Your task to perform on an android device: Open calendar and show me the first week of next month Image 0: 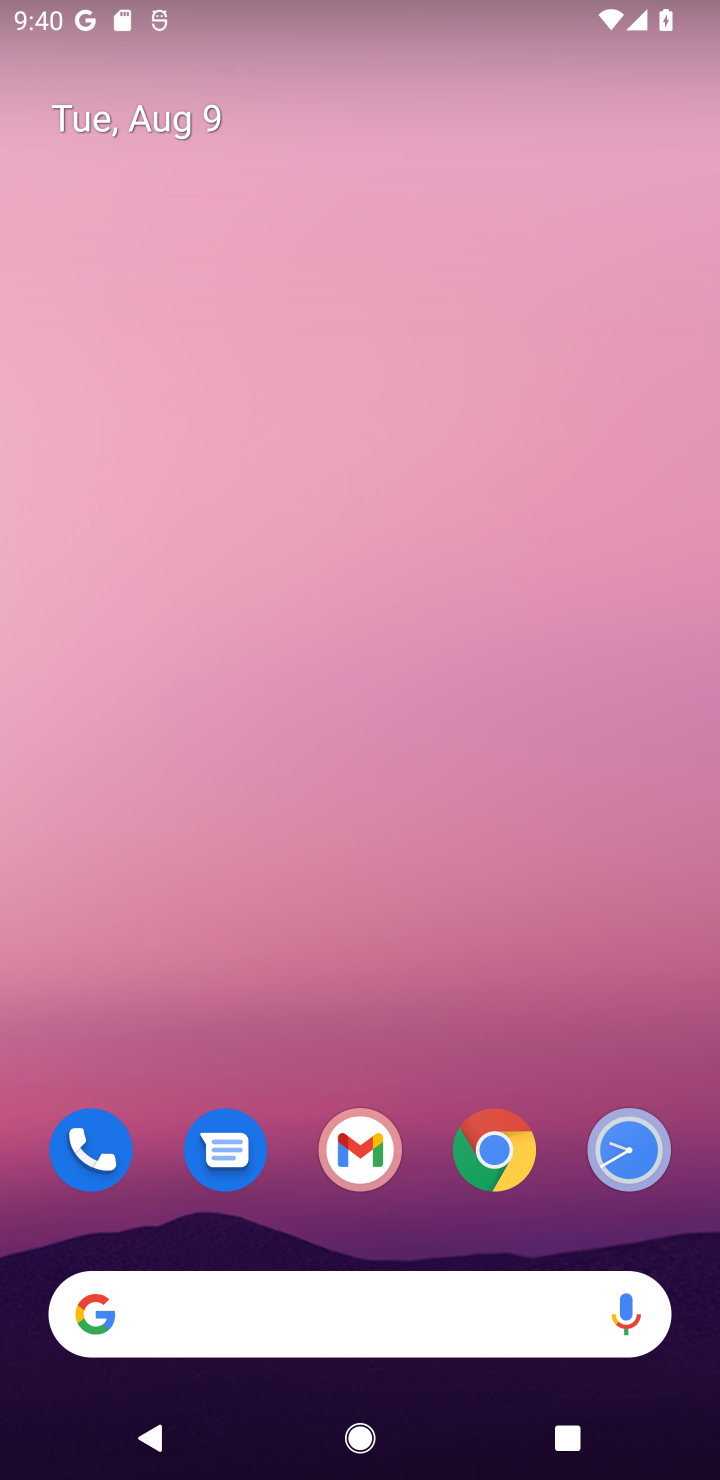
Step 0: drag from (450, 1187) to (498, 570)
Your task to perform on an android device: Open calendar and show me the first week of next month Image 1: 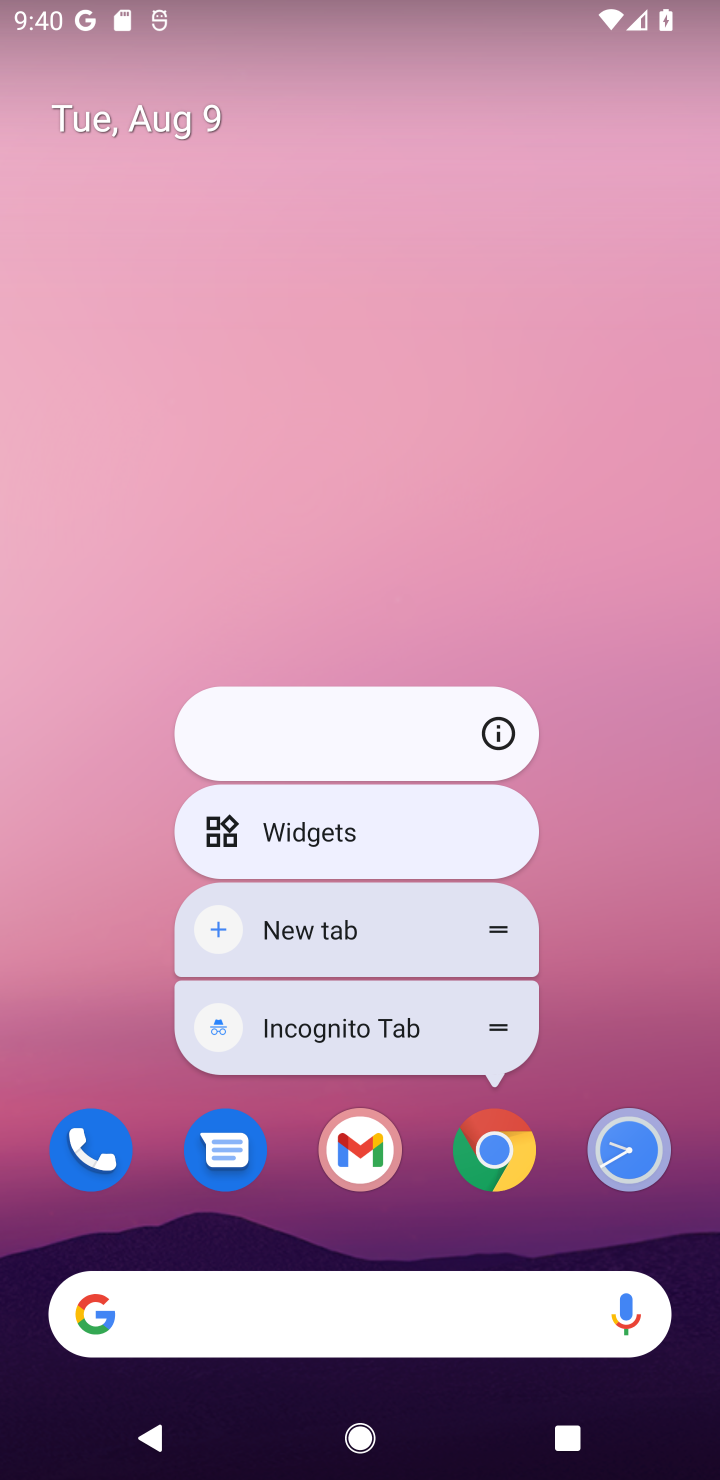
Step 1: click (313, 478)
Your task to perform on an android device: Open calendar and show me the first week of next month Image 2: 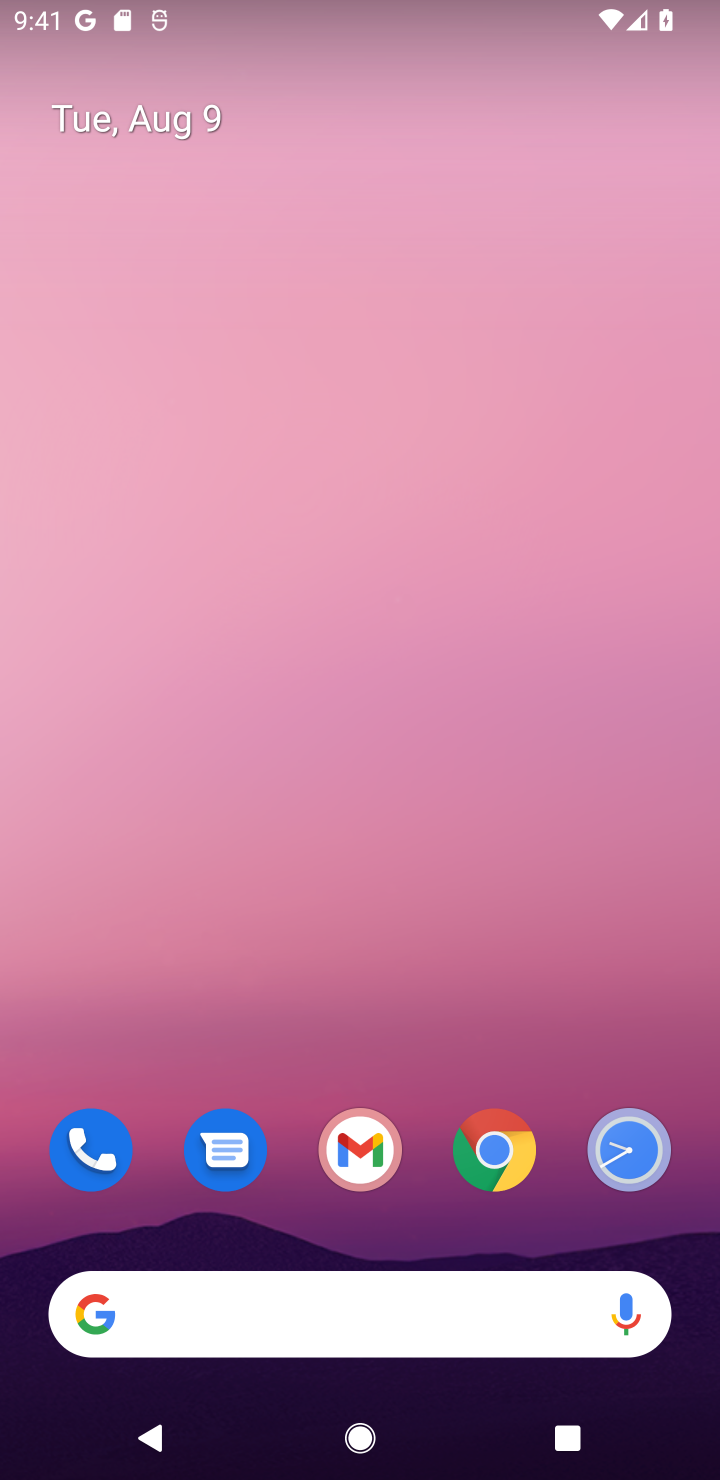
Step 2: drag from (365, 1269) to (183, 182)
Your task to perform on an android device: Open calendar and show me the first week of next month Image 3: 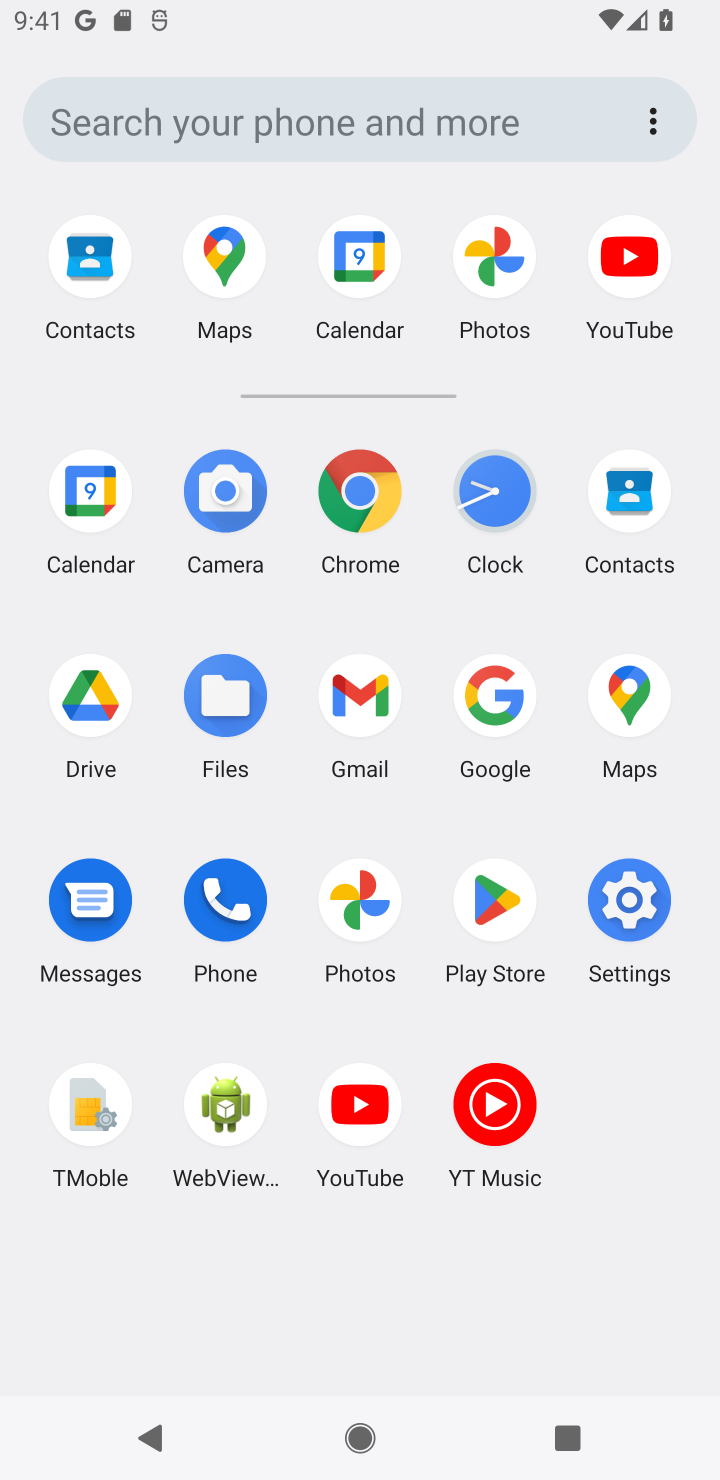
Step 3: click (85, 560)
Your task to perform on an android device: Open calendar and show me the first week of next month Image 4: 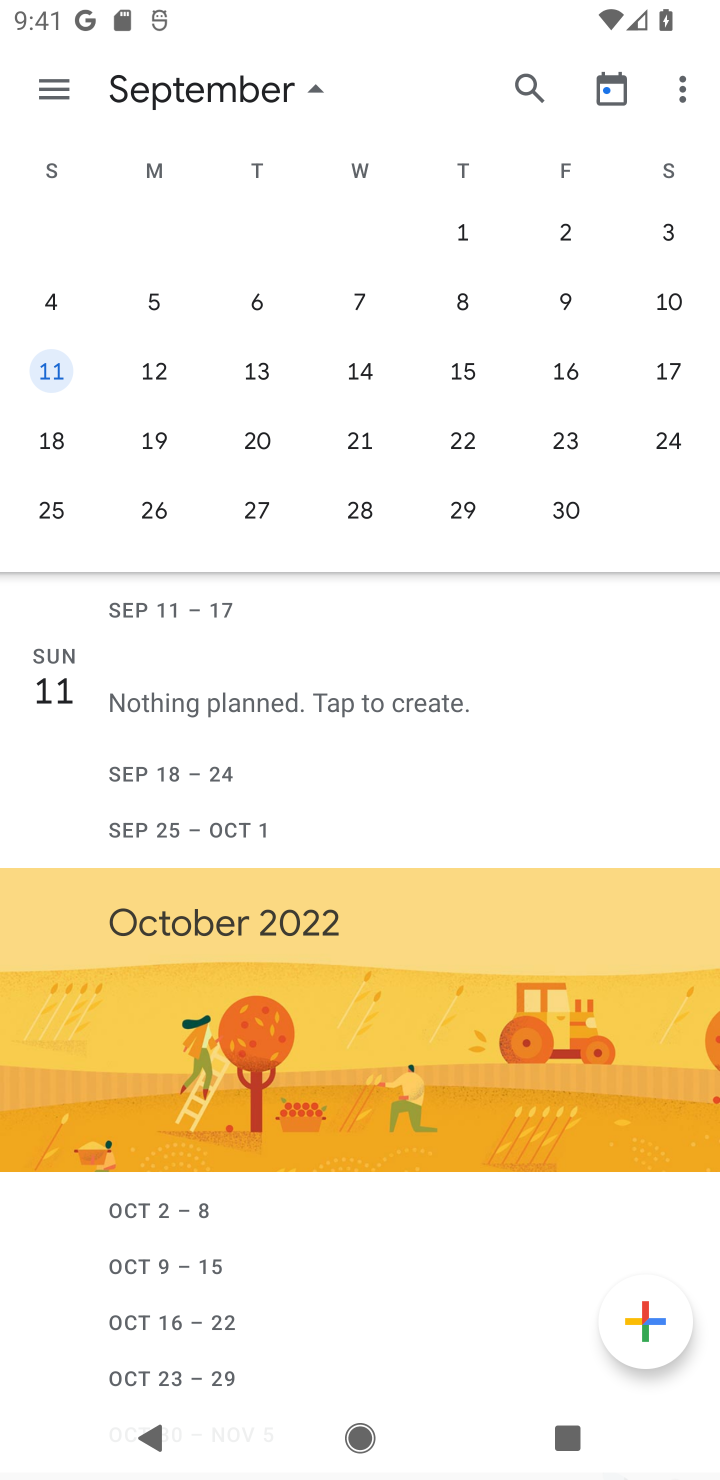
Step 4: click (460, 222)
Your task to perform on an android device: Open calendar and show me the first week of next month Image 5: 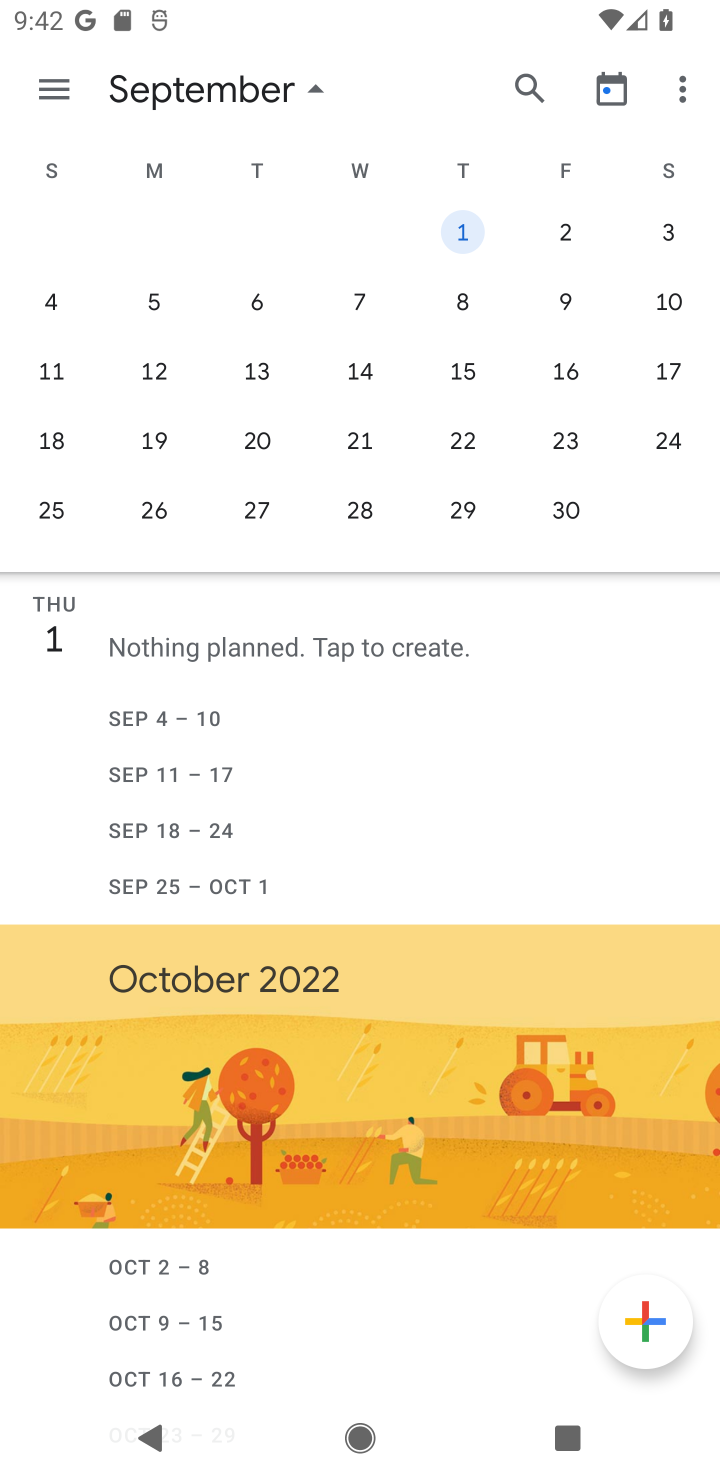
Step 5: task complete